Your task to perform on an android device: Open the calendar and show me this week's events? Image 0: 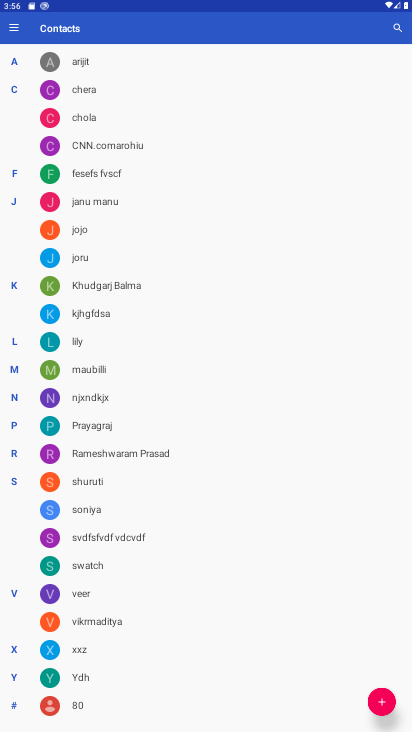
Step 0: press home button
Your task to perform on an android device: Open the calendar and show me this week's events? Image 1: 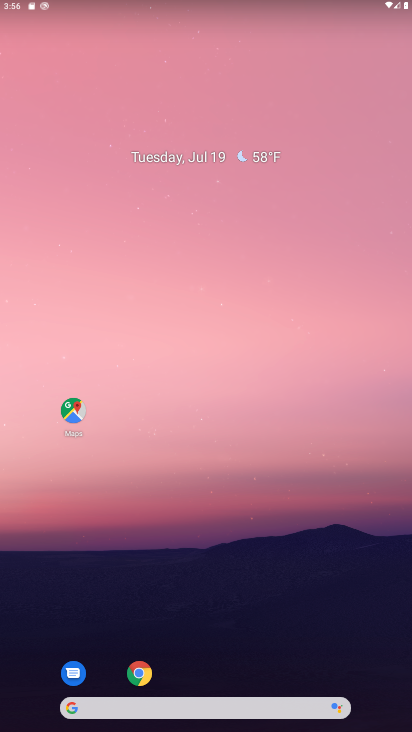
Step 1: drag from (184, 707) to (188, 18)
Your task to perform on an android device: Open the calendar and show me this week's events? Image 2: 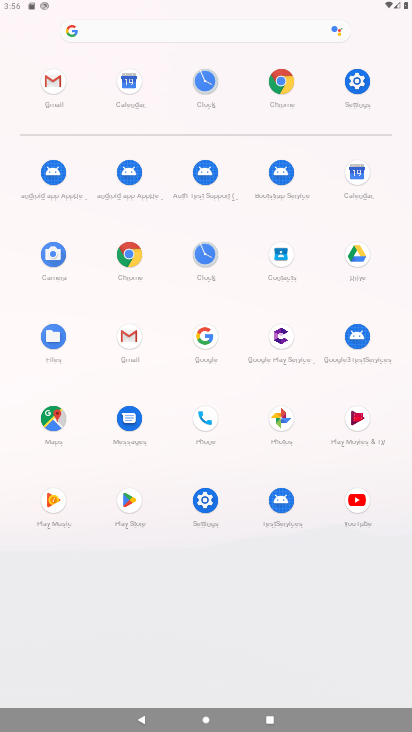
Step 2: click (360, 166)
Your task to perform on an android device: Open the calendar and show me this week's events? Image 3: 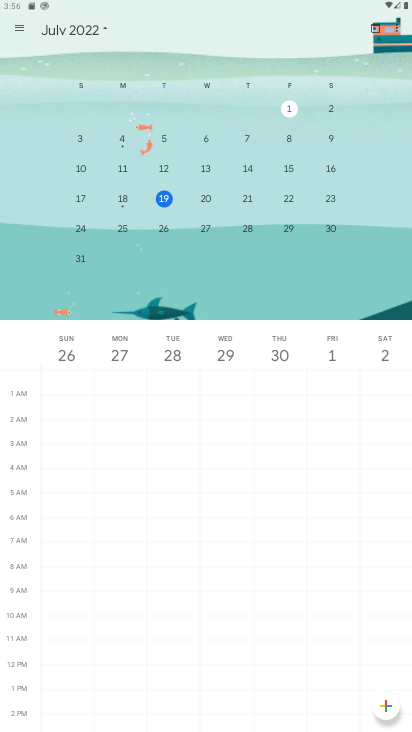
Step 3: click (241, 193)
Your task to perform on an android device: Open the calendar and show me this week's events? Image 4: 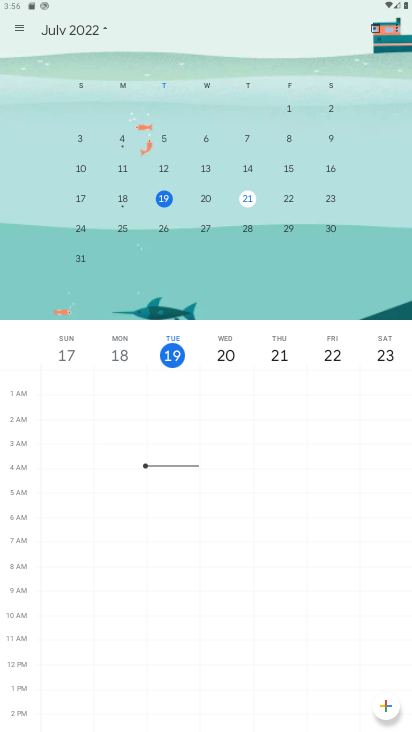
Step 4: click (25, 31)
Your task to perform on an android device: Open the calendar and show me this week's events? Image 5: 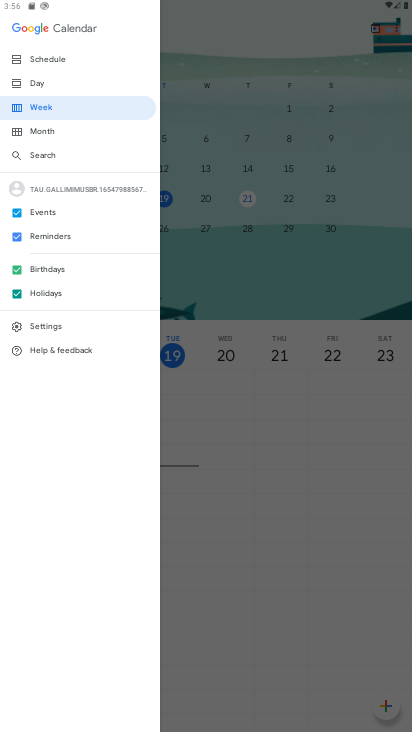
Step 5: click (57, 109)
Your task to perform on an android device: Open the calendar and show me this week's events? Image 6: 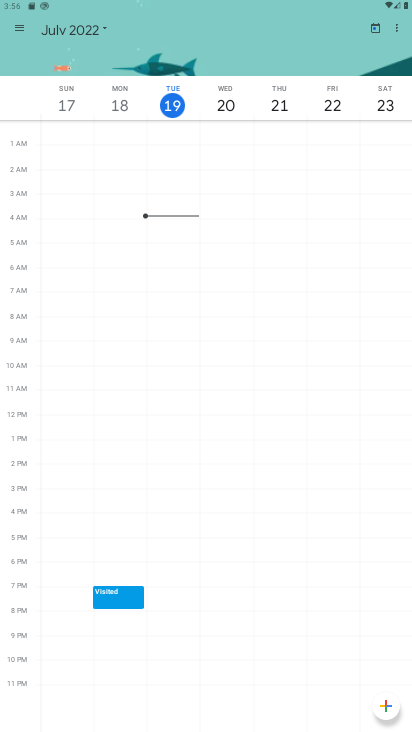
Step 6: click (11, 28)
Your task to perform on an android device: Open the calendar and show me this week's events? Image 7: 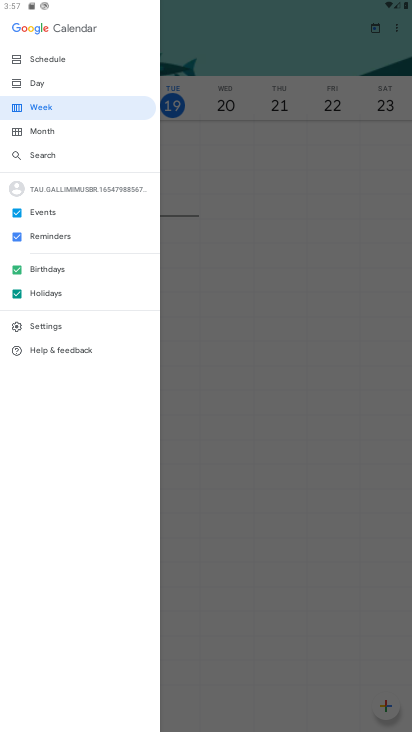
Step 7: click (46, 206)
Your task to perform on an android device: Open the calendar and show me this week's events? Image 8: 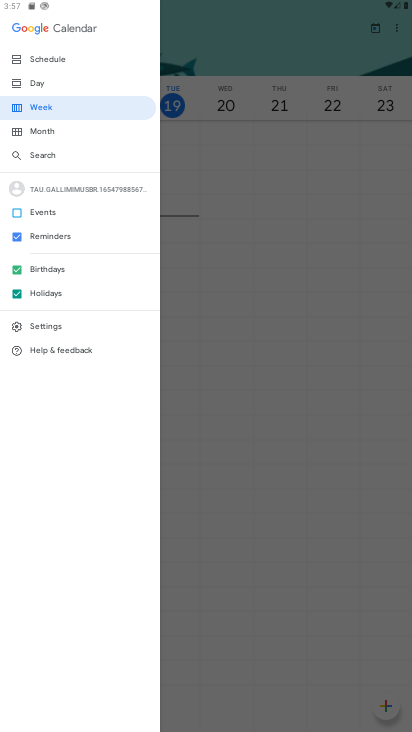
Step 8: click (56, 211)
Your task to perform on an android device: Open the calendar and show me this week's events? Image 9: 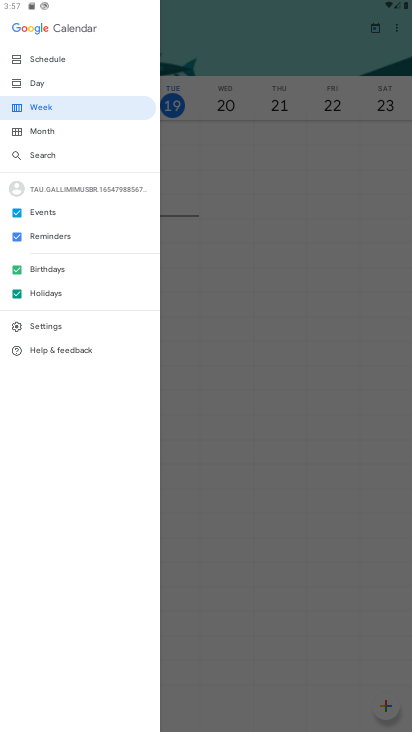
Step 9: click (245, 271)
Your task to perform on an android device: Open the calendar and show me this week's events? Image 10: 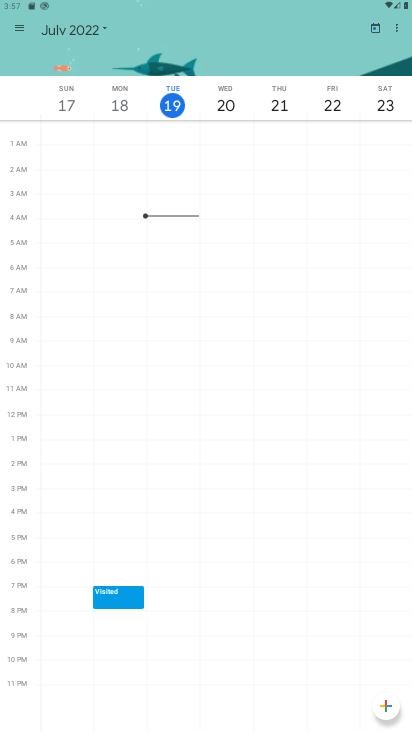
Step 10: task complete